Your task to perform on an android device: install app "Instagram" Image 0: 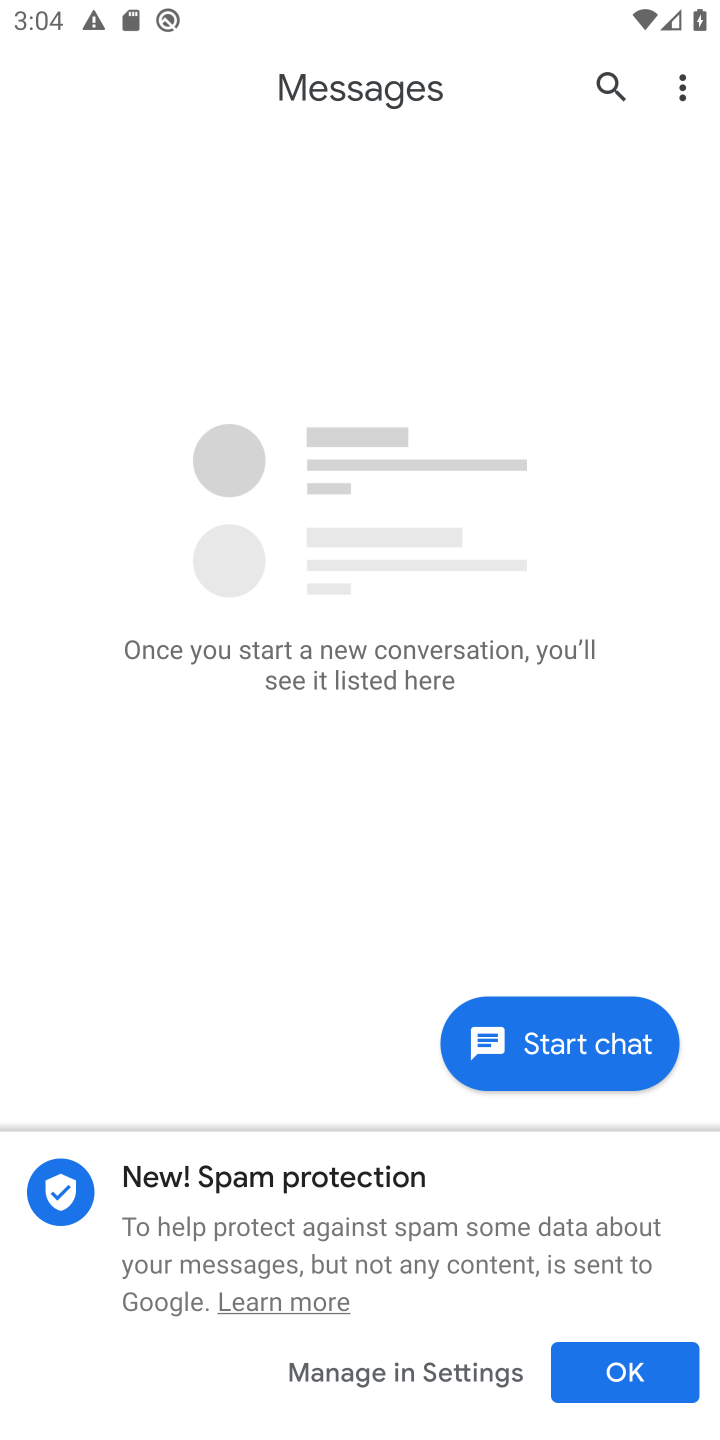
Step 0: press home button
Your task to perform on an android device: install app "Instagram" Image 1: 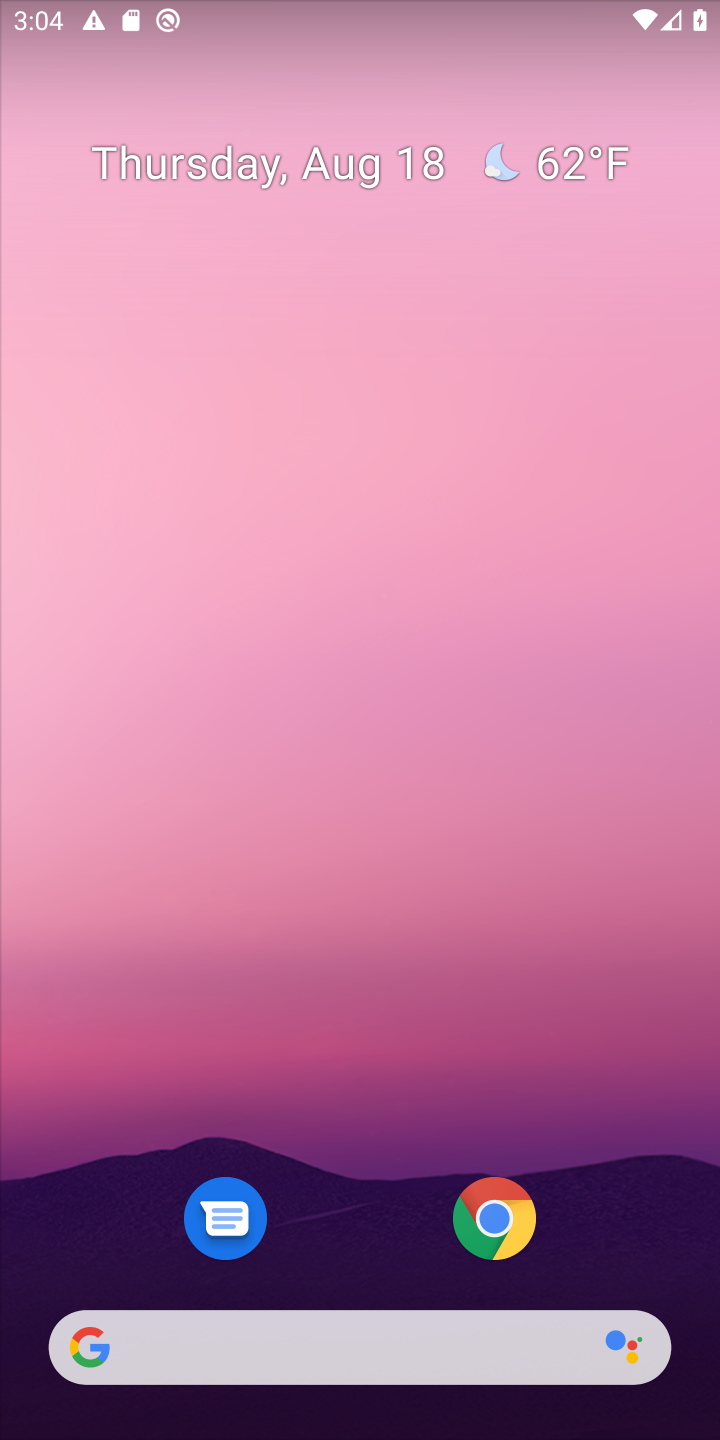
Step 1: drag from (378, 1111) to (378, 292)
Your task to perform on an android device: install app "Instagram" Image 2: 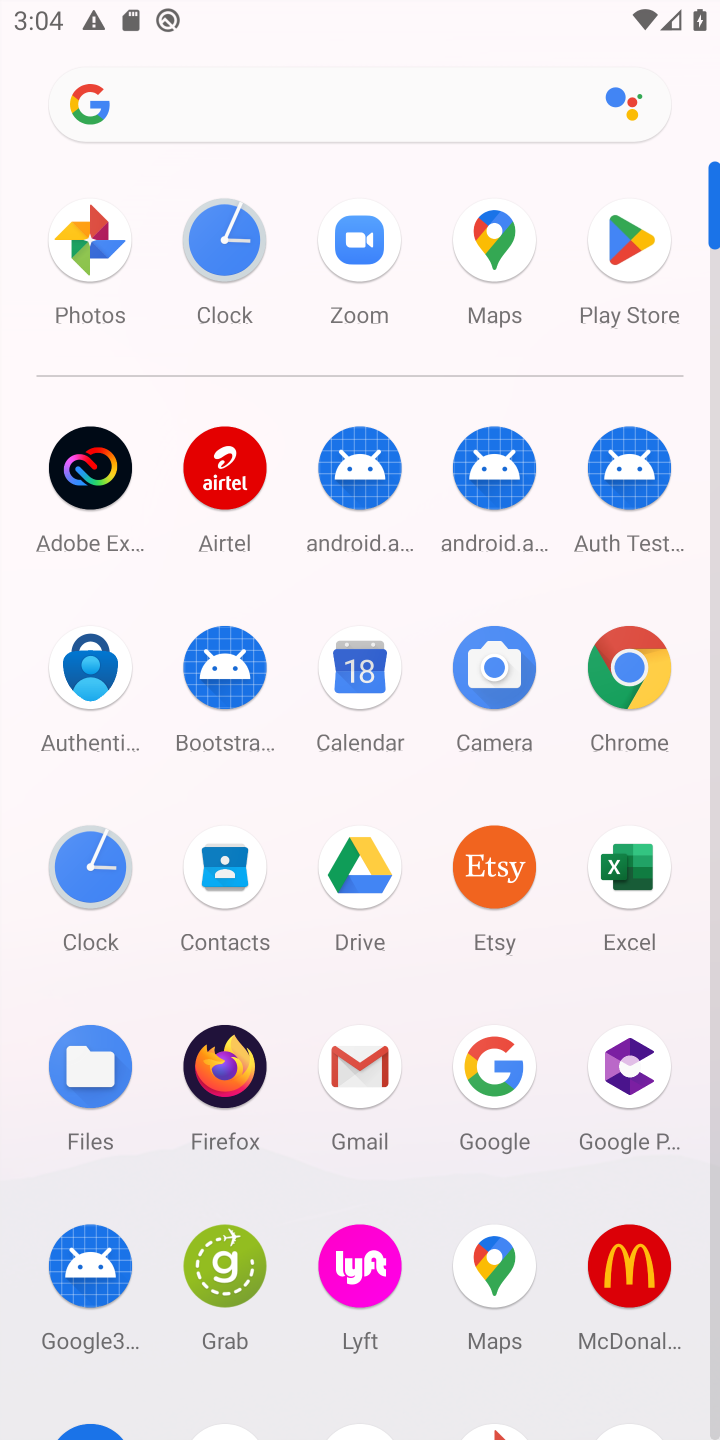
Step 2: click (602, 241)
Your task to perform on an android device: install app "Instagram" Image 3: 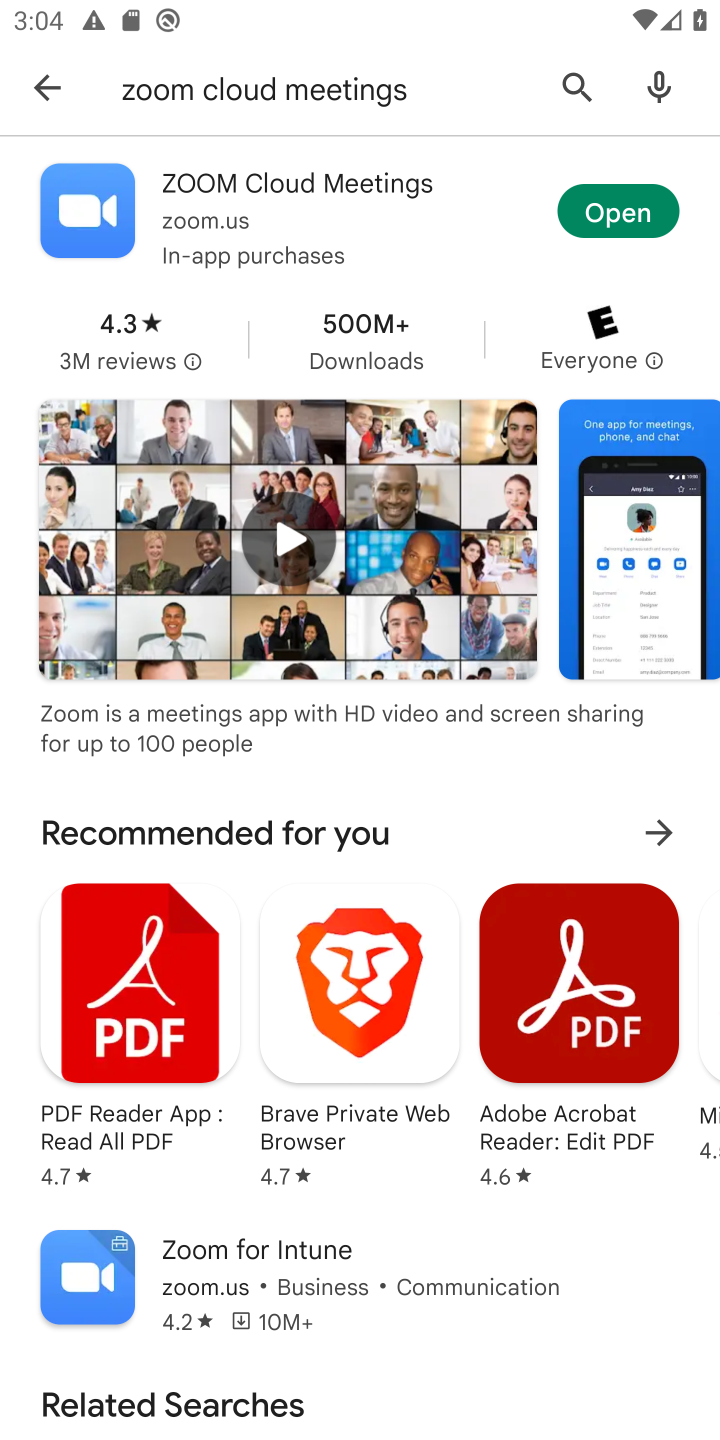
Step 3: click (575, 91)
Your task to perform on an android device: install app "Instagram" Image 4: 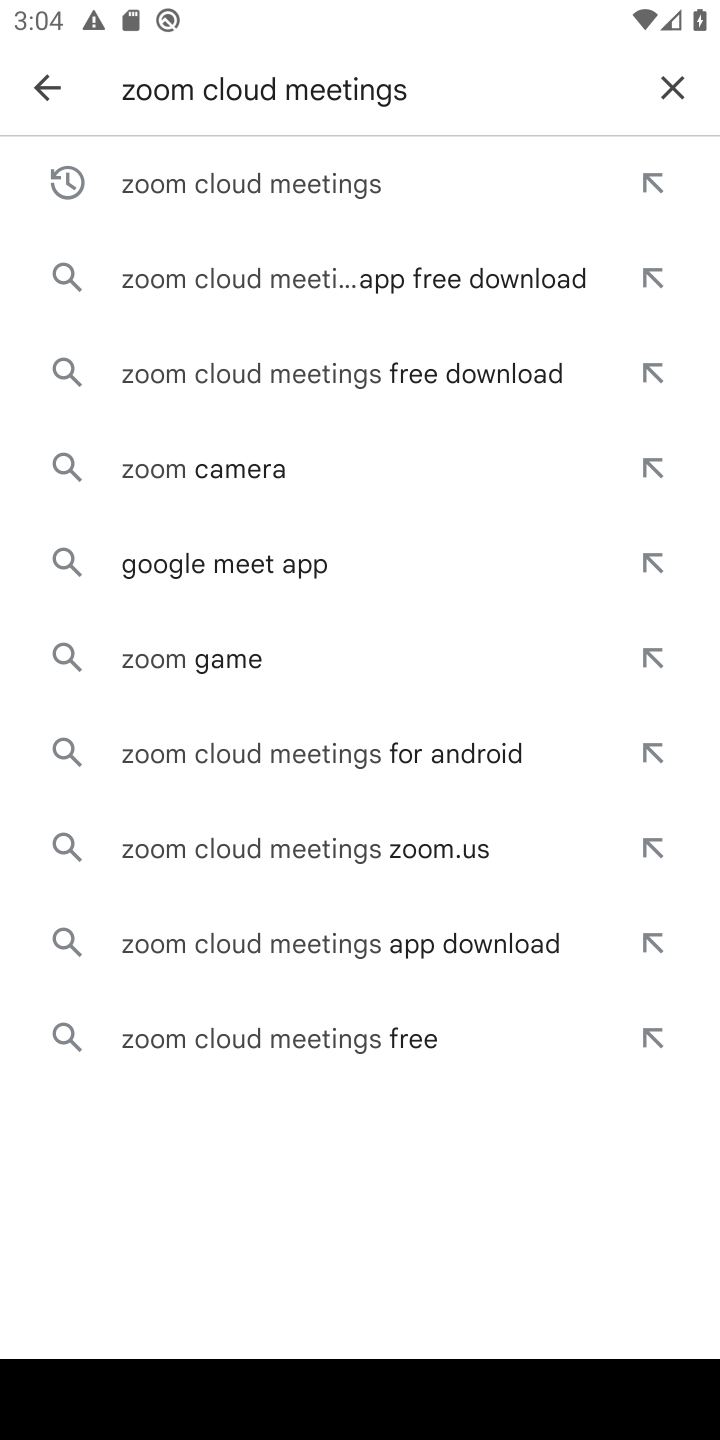
Step 4: click (675, 88)
Your task to perform on an android device: install app "Instagram" Image 5: 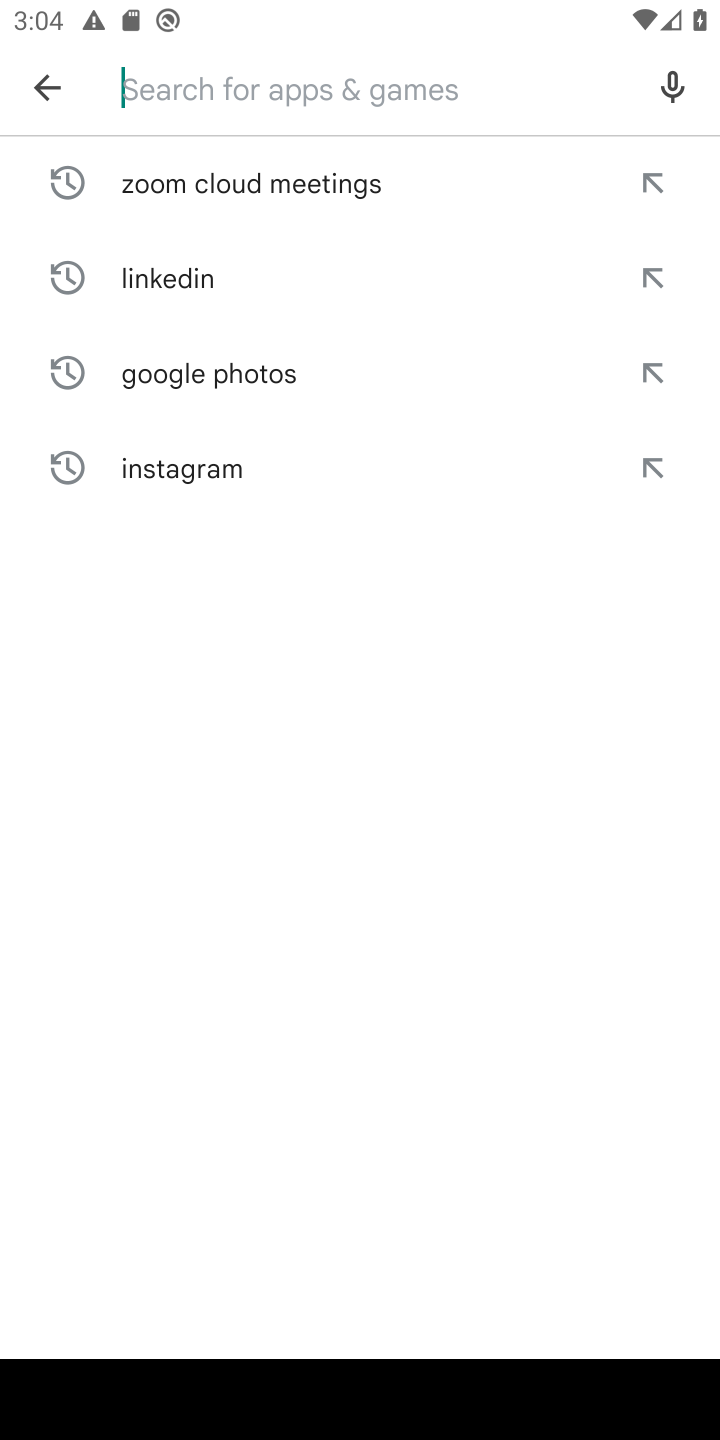
Step 5: type "Instagram"
Your task to perform on an android device: install app "Instagram" Image 6: 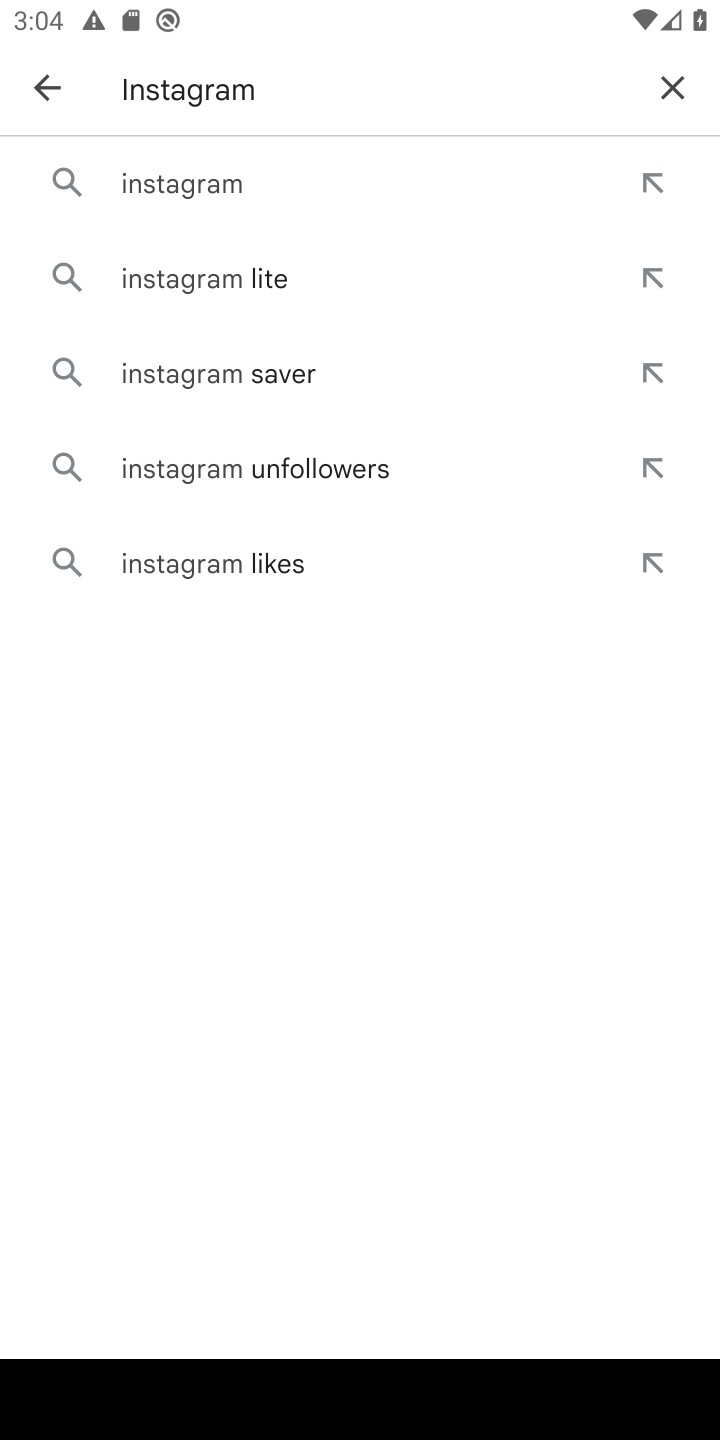
Step 6: click (307, 174)
Your task to perform on an android device: install app "Instagram" Image 7: 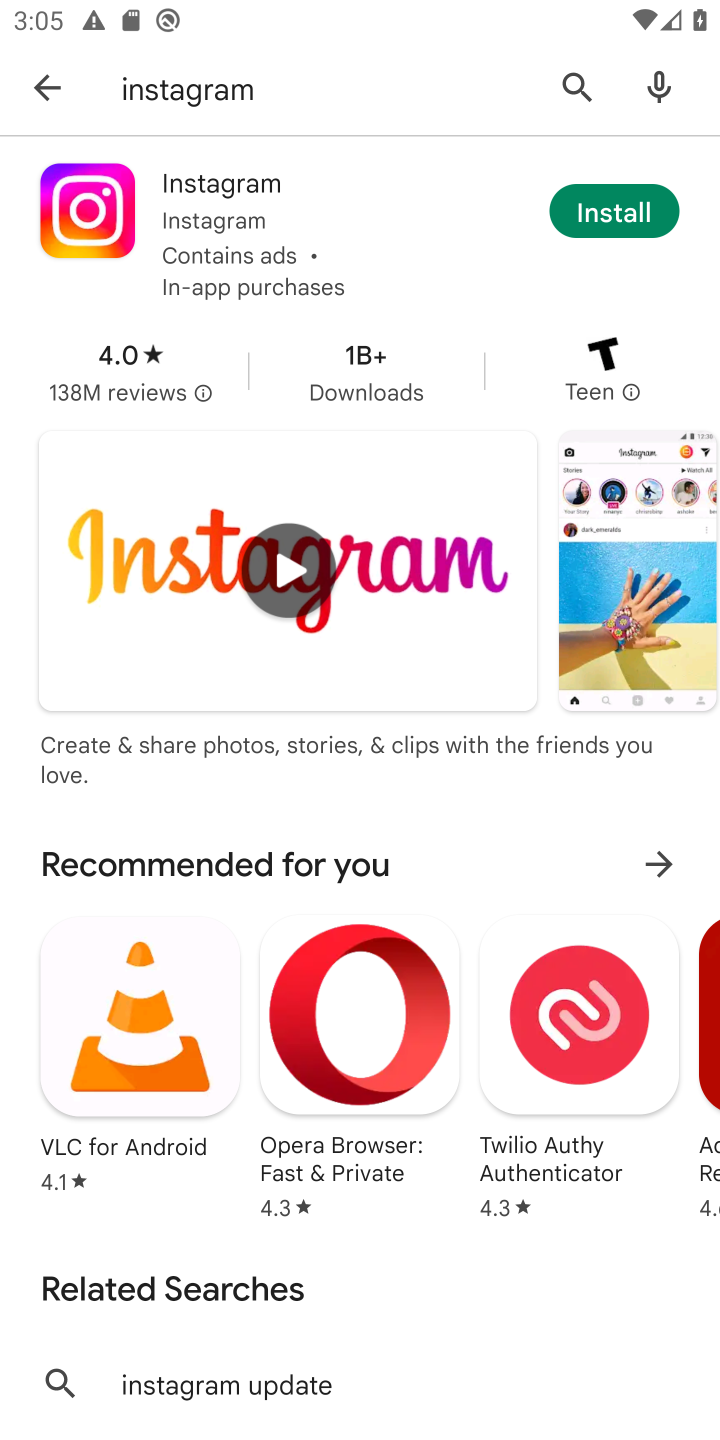
Step 7: click (604, 225)
Your task to perform on an android device: install app "Instagram" Image 8: 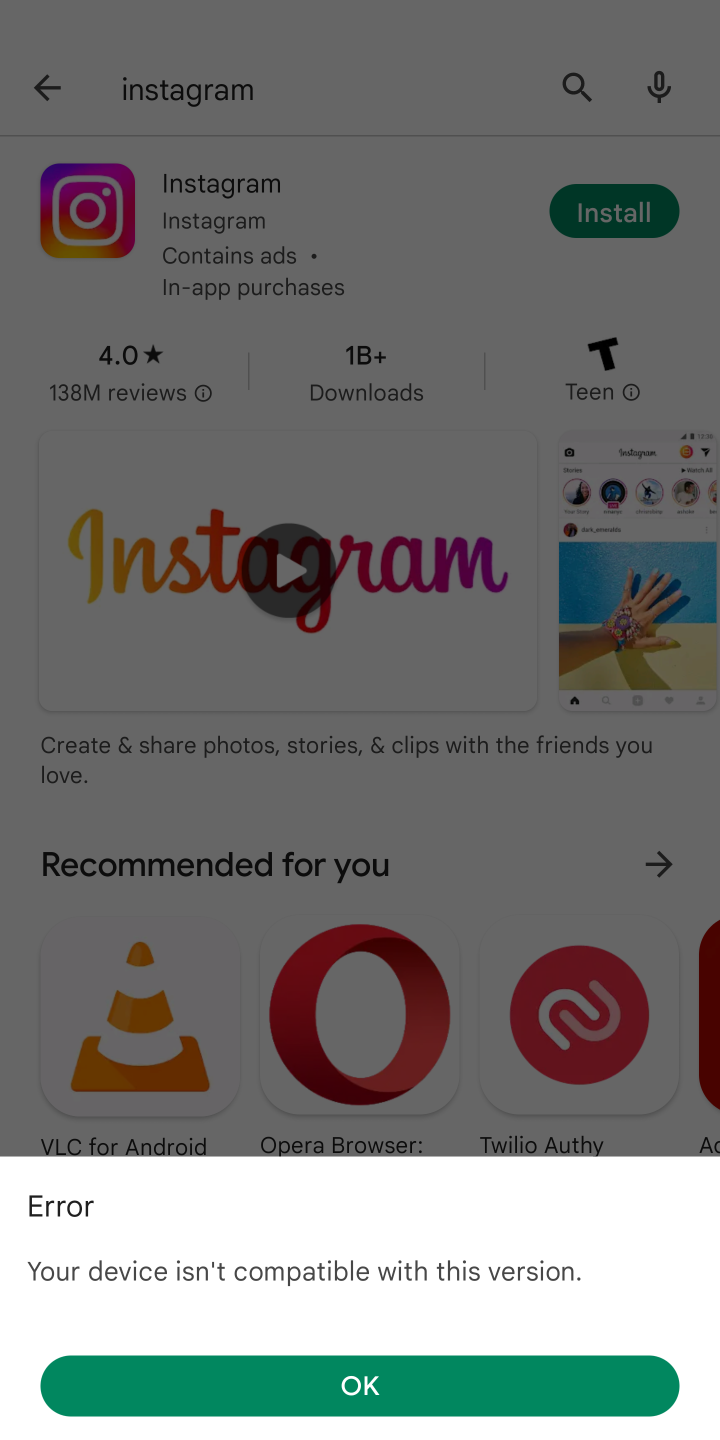
Step 8: click (445, 1390)
Your task to perform on an android device: install app "Instagram" Image 9: 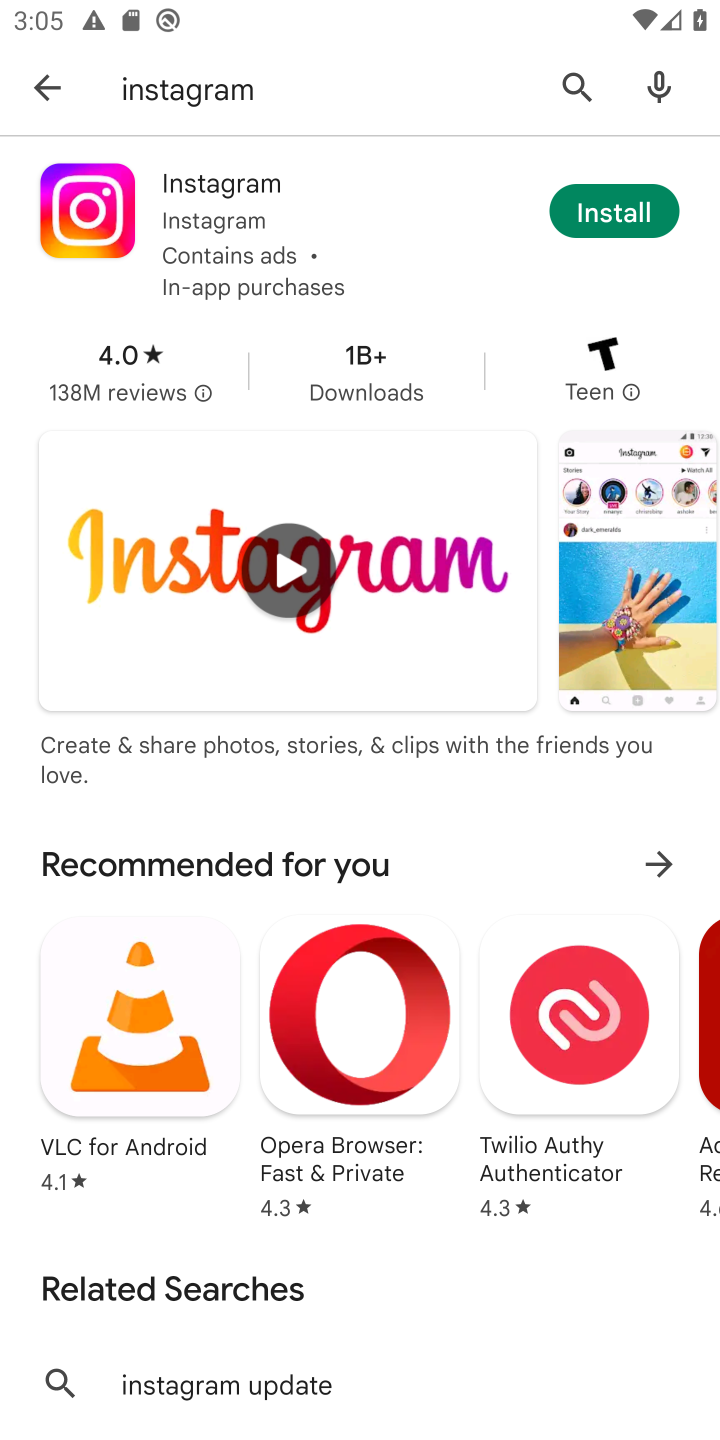
Step 9: click (609, 208)
Your task to perform on an android device: install app "Instagram" Image 10: 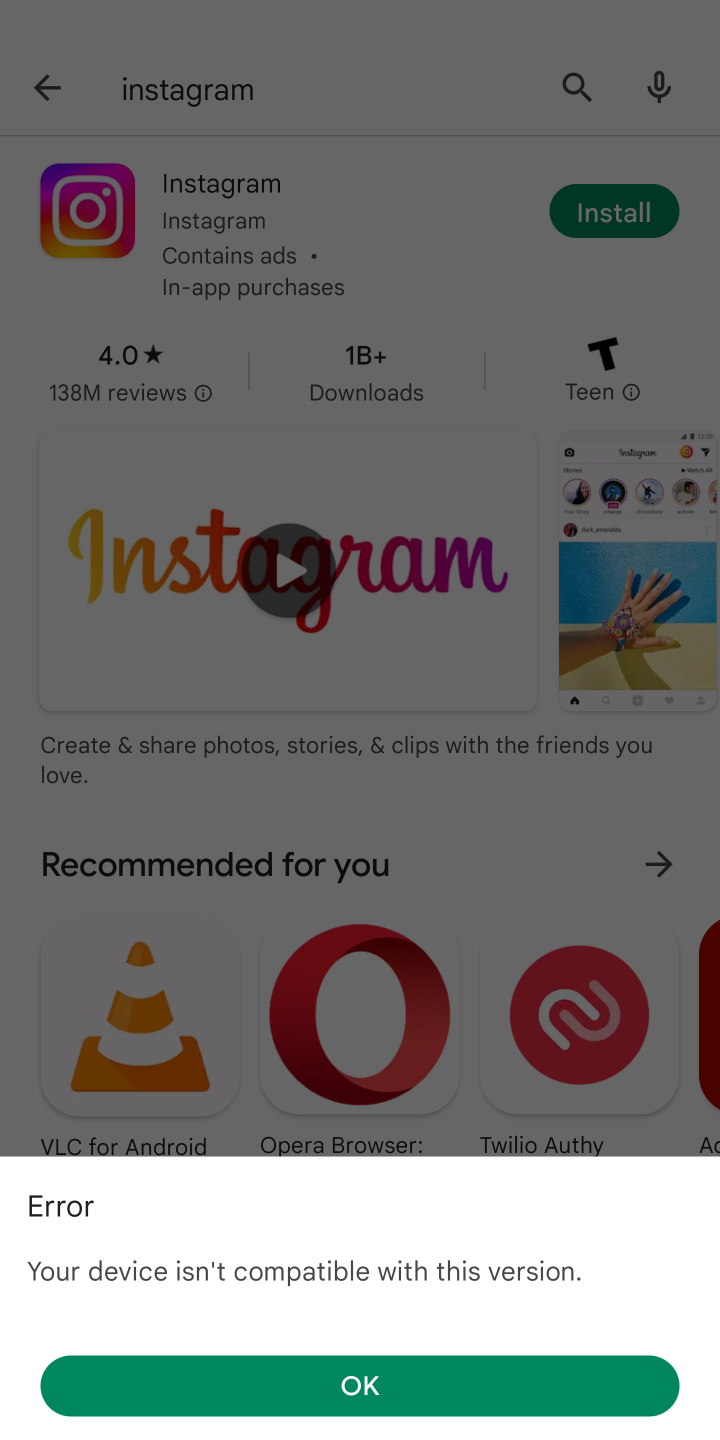
Step 10: click (462, 1386)
Your task to perform on an android device: install app "Instagram" Image 11: 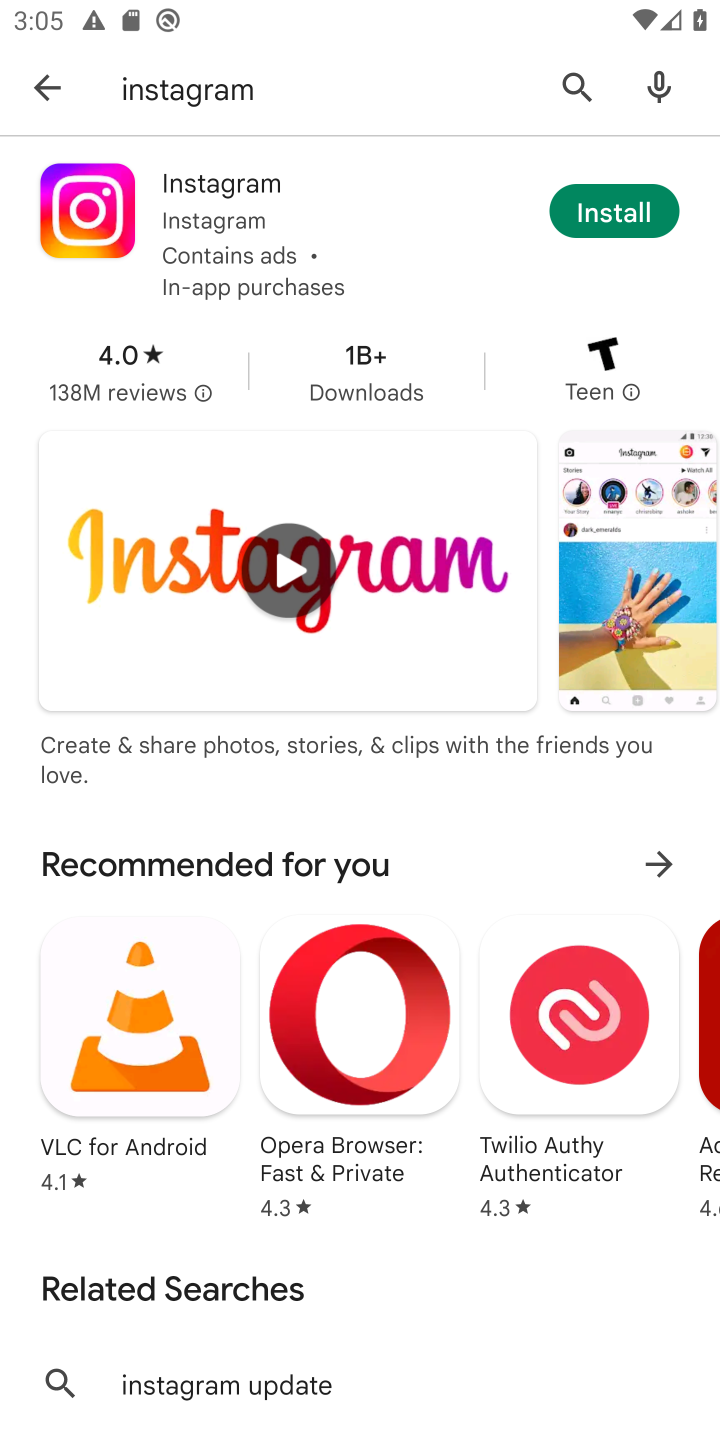
Step 11: task complete